Your task to perform on an android device: What's the weather going to be this weekend? Image 0: 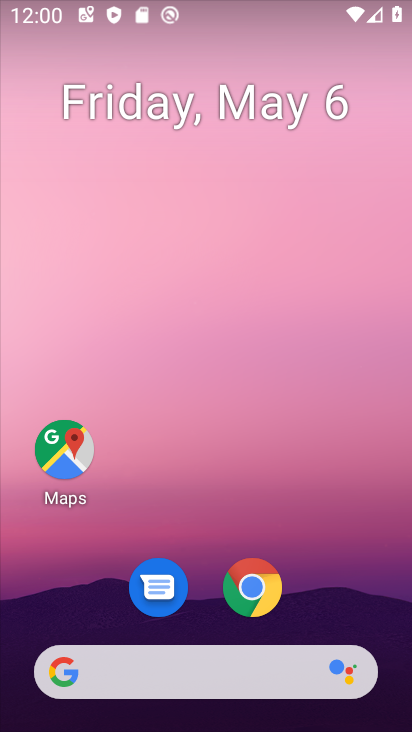
Step 0: click (179, 657)
Your task to perform on an android device: What's the weather going to be this weekend? Image 1: 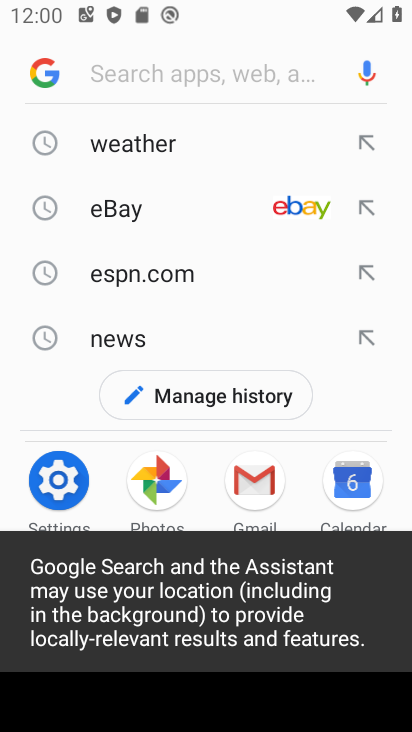
Step 1: click (162, 147)
Your task to perform on an android device: What's the weather going to be this weekend? Image 2: 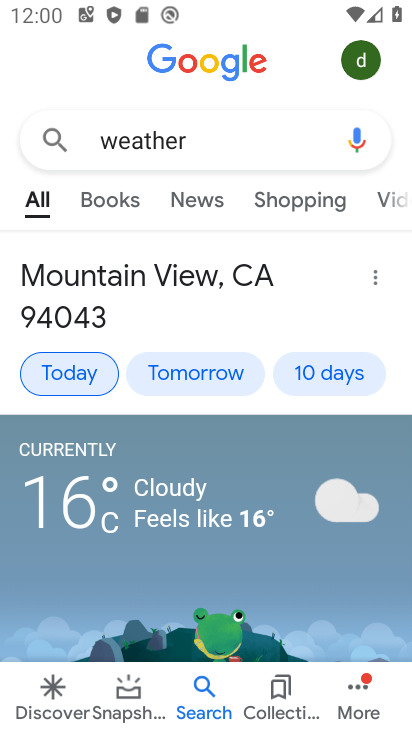
Step 2: click (240, 144)
Your task to perform on an android device: What's the weather going to be this weekend? Image 3: 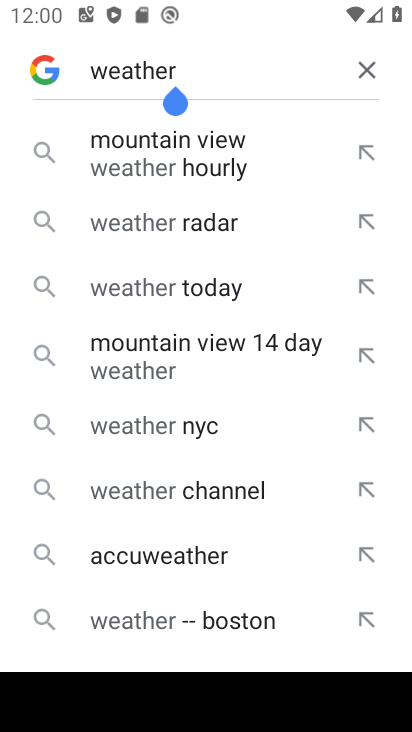
Step 3: click (342, 373)
Your task to perform on an android device: What's the weather going to be this weekend? Image 4: 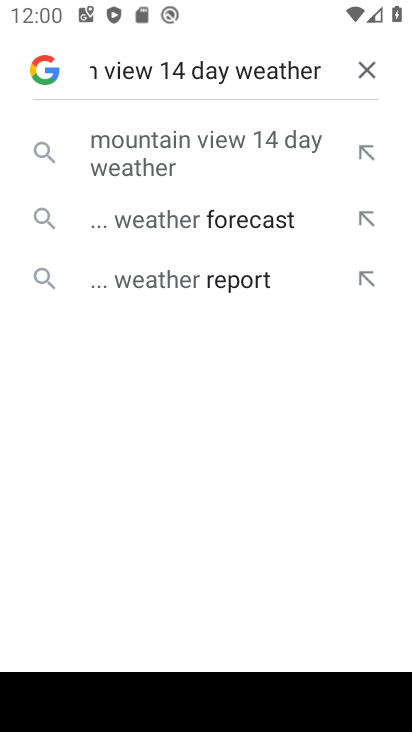
Step 4: click (355, 61)
Your task to perform on an android device: What's the weather going to be this weekend? Image 5: 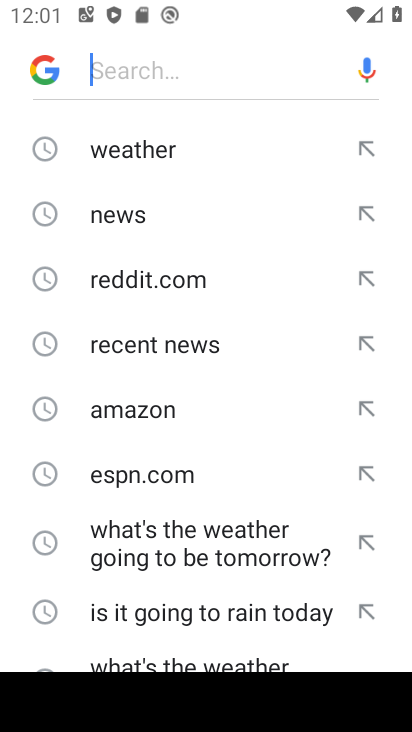
Step 5: click (154, 140)
Your task to perform on an android device: What's the weather going to be this weekend? Image 6: 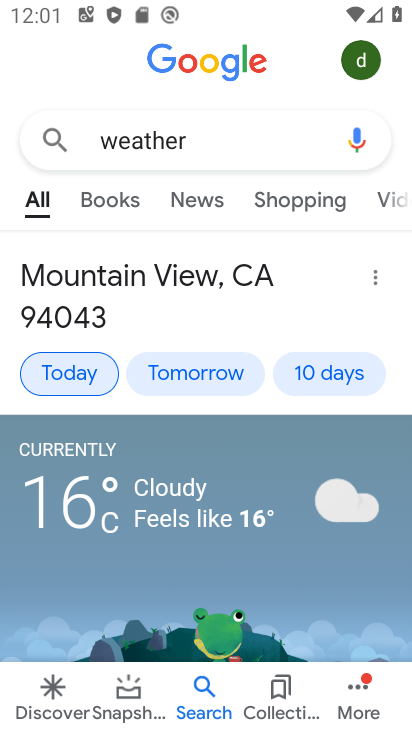
Step 6: click (335, 365)
Your task to perform on an android device: What's the weather going to be this weekend? Image 7: 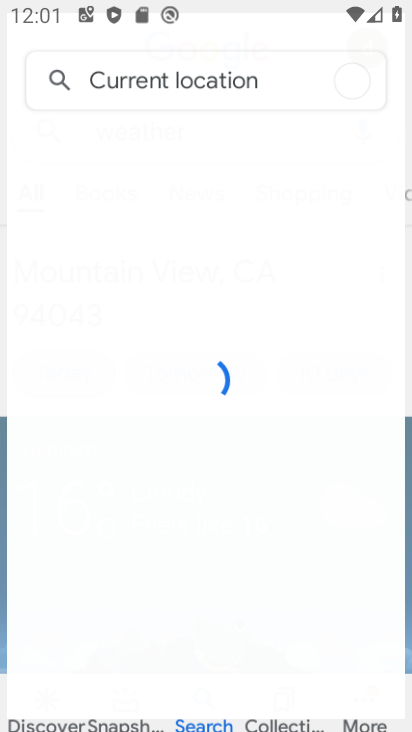
Step 7: click (329, 373)
Your task to perform on an android device: What's the weather going to be this weekend? Image 8: 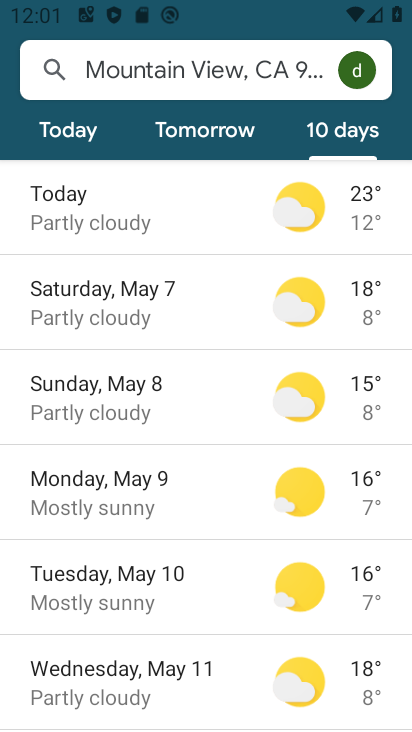
Step 8: task complete